Your task to perform on an android device: Open Youtube and go to "Your channel" Image 0: 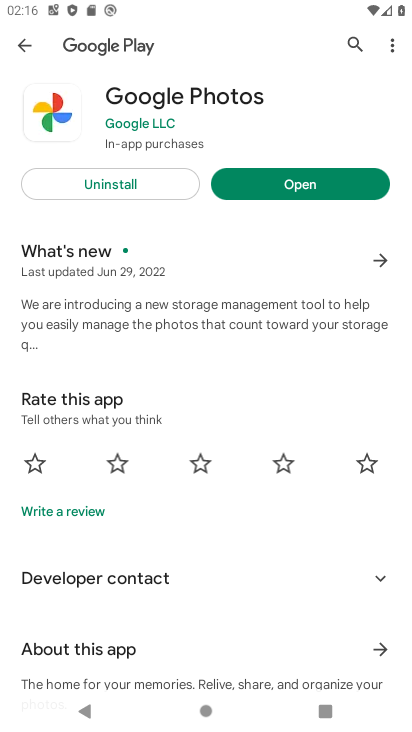
Step 0: press home button
Your task to perform on an android device: Open Youtube and go to "Your channel" Image 1: 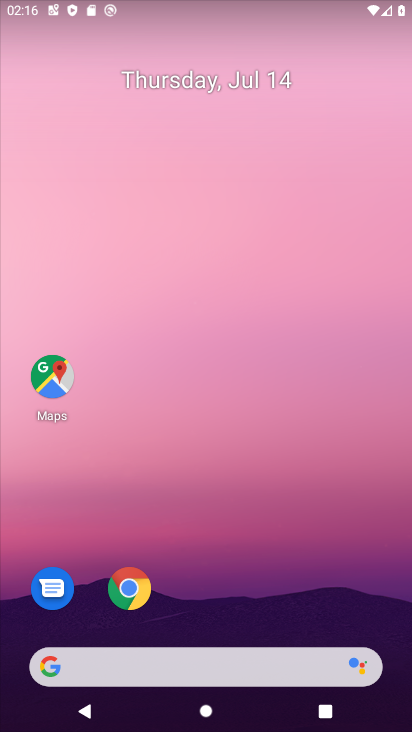
Step 1: drag from (264, 706) to (303, 131)
Your task to perform on an android device: Open Youtube and go to "Your channel" Image 2: 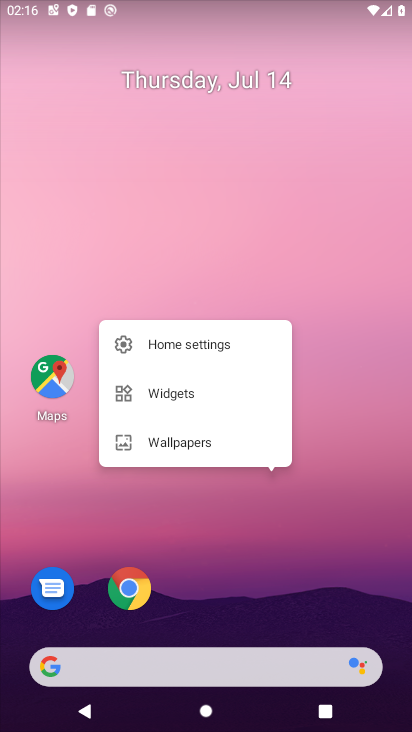
Step 2: drag from (296, 717) to (287, 97)
Your task to perform on an android device: Open Youtube and go to "Your channel" Image 3: 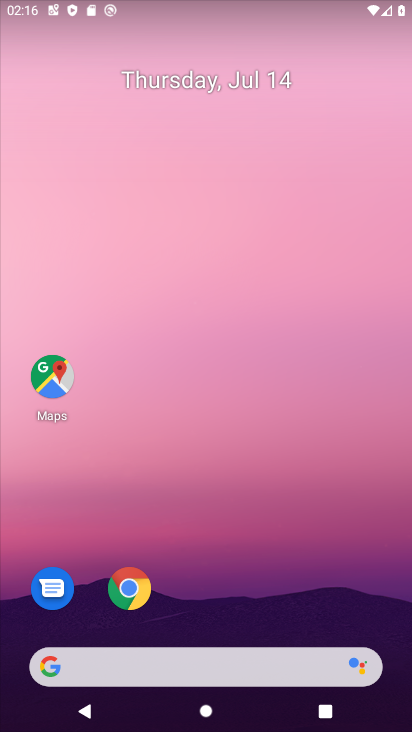
Step 3: drag from (258, 619) to (303, 49)
Your task to perform on an android device: Open Youtube and go to "Your channel" Image 4: 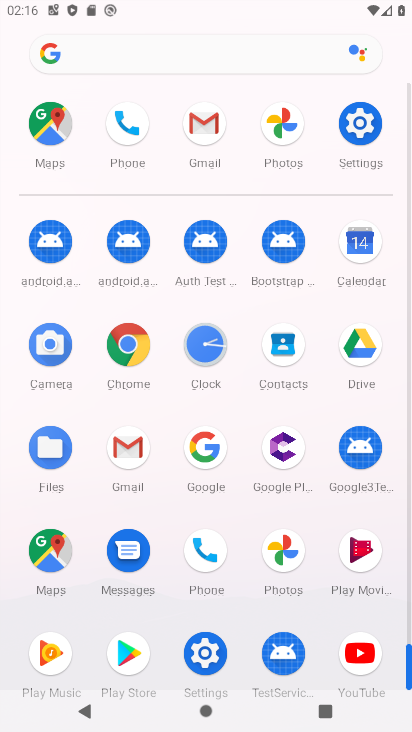
Step 4: click (350, 647)
Your task to perform on an android device: Open Youtube and go to "Your channel" Image 5: 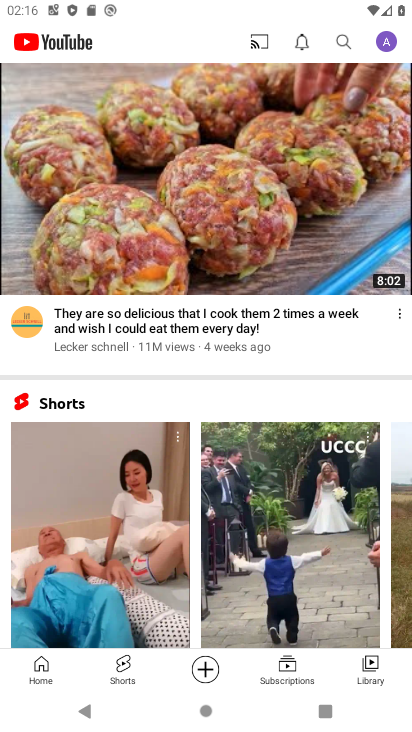
Step 5: click (392, 38)
Your task to perform on an android device: Open Youtube and go to "Your channel" Image 6: 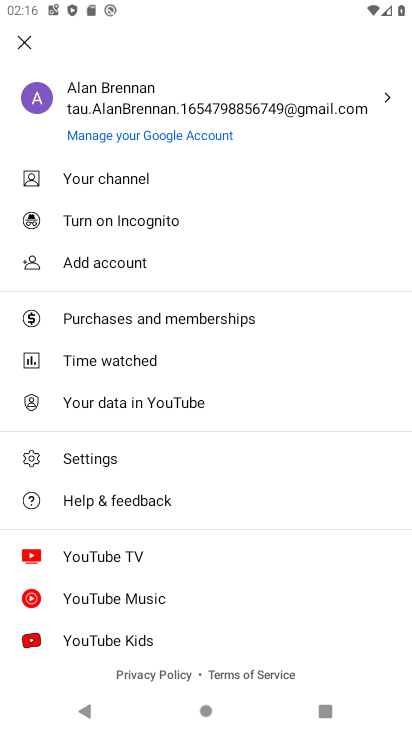
Step 6: click (112, 177)
Your task to perform on an android device: Open Youtube and go to "Your channel" Image 7: 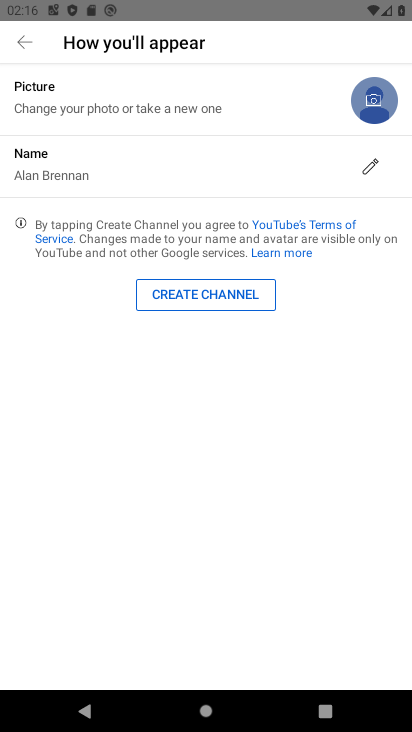
Step 7: task complete